Your task to perform on an android device: move a message to another label in the gmail app Image 0: 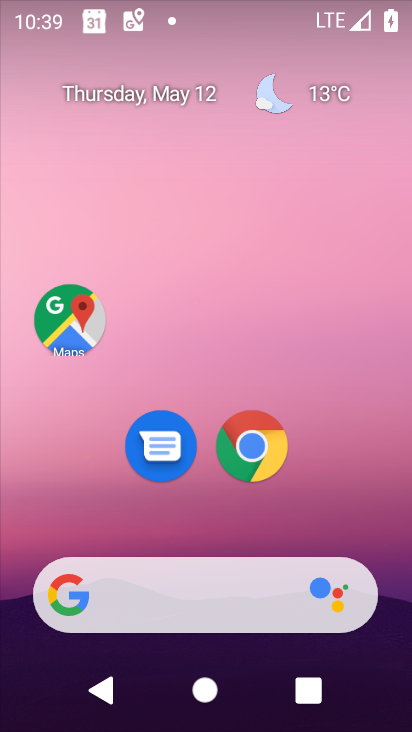
Step 0: drag from (214, 597) to (173, 10)
Your task to perform on an android device: move a message to another label in the gmail app Image 1: 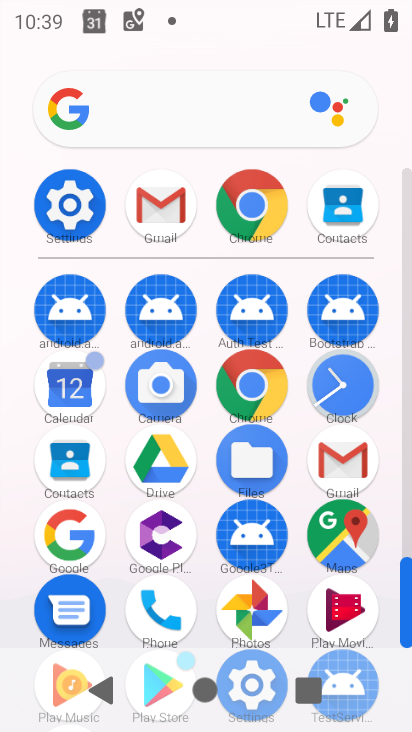
Step 1: click (335, 470)
Your task to perform on an android device: move a message to another label in the gmail app Image 2: 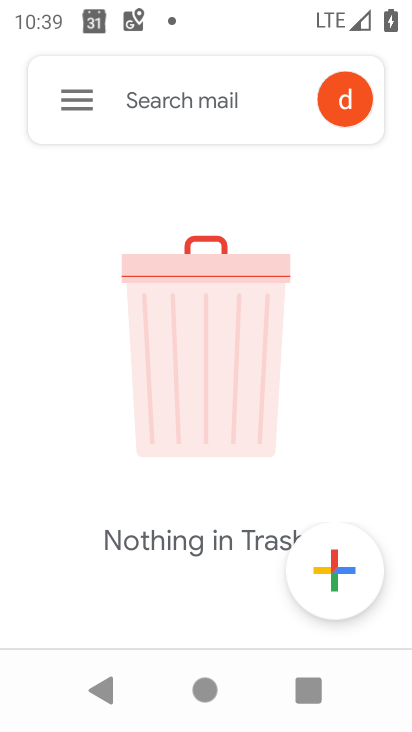
Step 2: click (63, 94)
Your task to perform on an android device: move a message to another label in the gmail app Image 3: 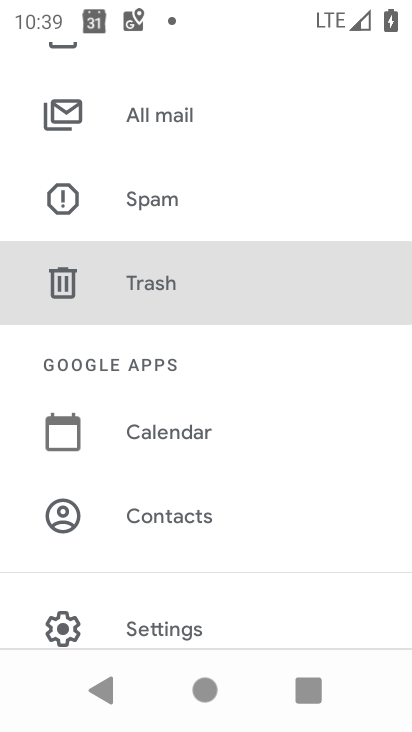
Step 3: drag from (104, 186) to (198, 719)
Your task to perform on an android device: move a message to another label in the gmail app Image 4: 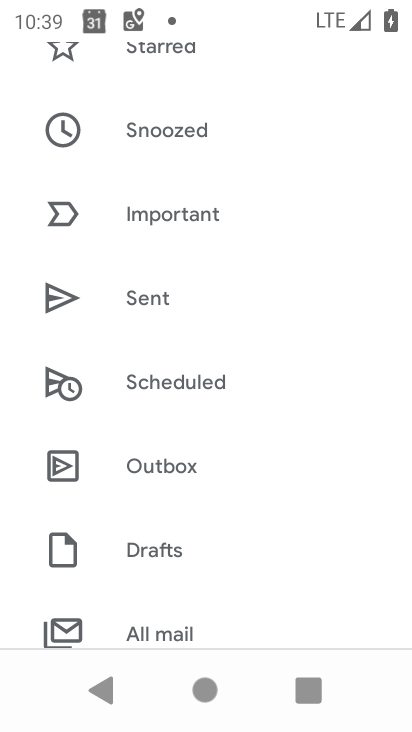
Step 4: drag from (155, 311) to (199, 641)
Your task to perform on an android device: move a message to another label in the gmail app Image 5: 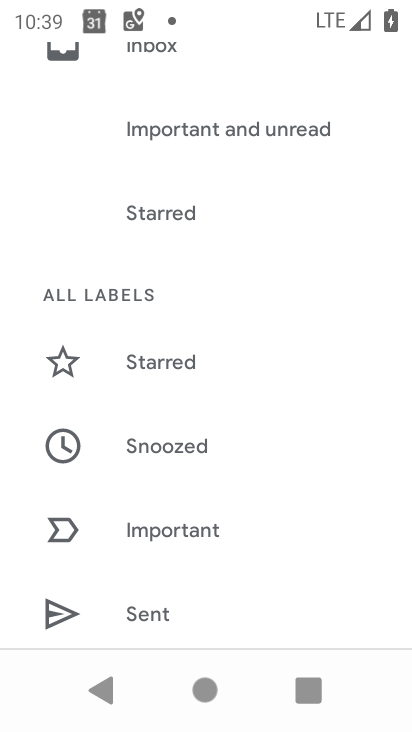
Step 5: drag from (185, 604) to (237, 312)
Your task to perform on an android device: move a message to another label in the gmail app Image 6: 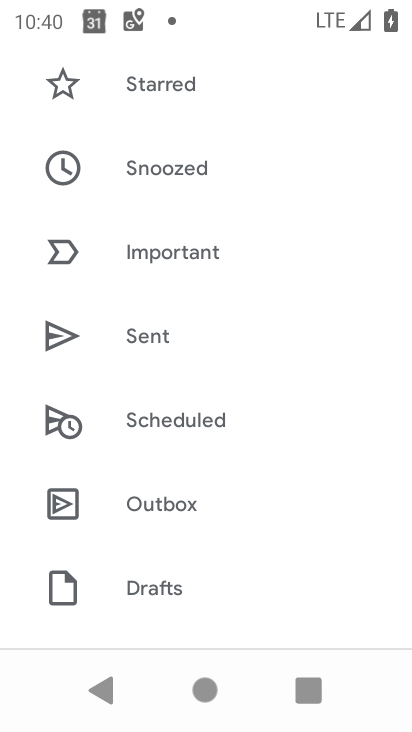
Step 6: drag from (176, 91) to (193, 571)
Your task to perform on an android device: move a message to another label in the gmail app Image 7: 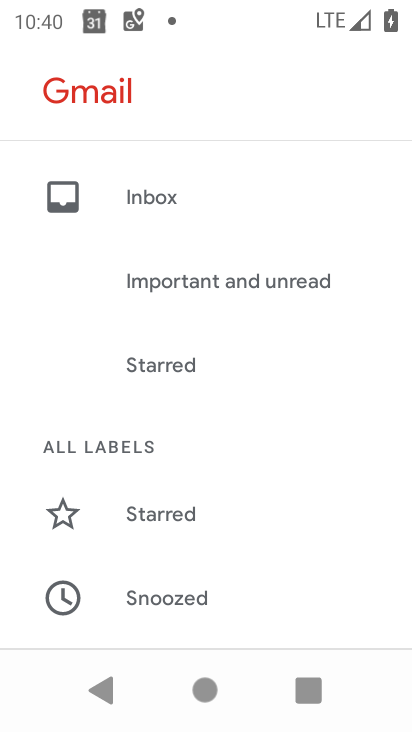
Step 7: click (175, 196)
Your task to perform on an android device: move a message to another label in the gmail app Image 8: 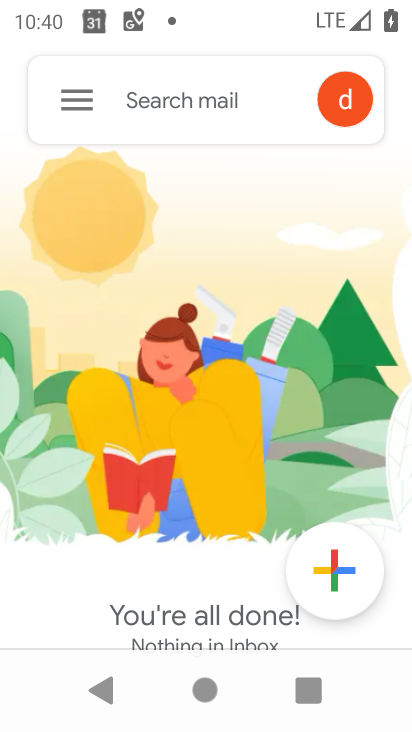
Step 8: task complete